Your task to perform on an android device: turn on airplane mode Image 0: 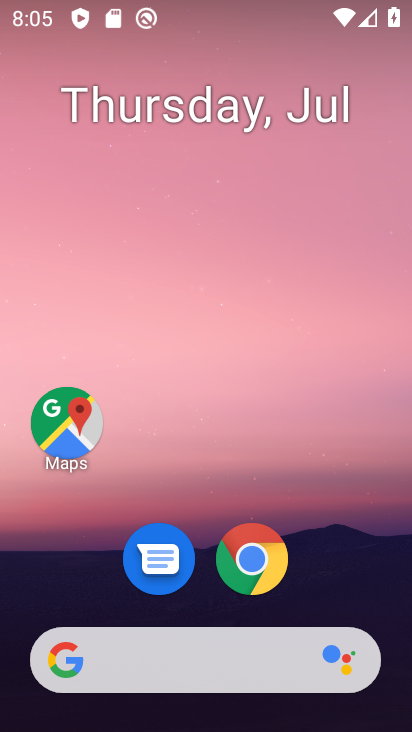
Step 0: drag from (112, 579) to (179, 2)
Your task to perform on an android device: turn on airplane mode Image 1: 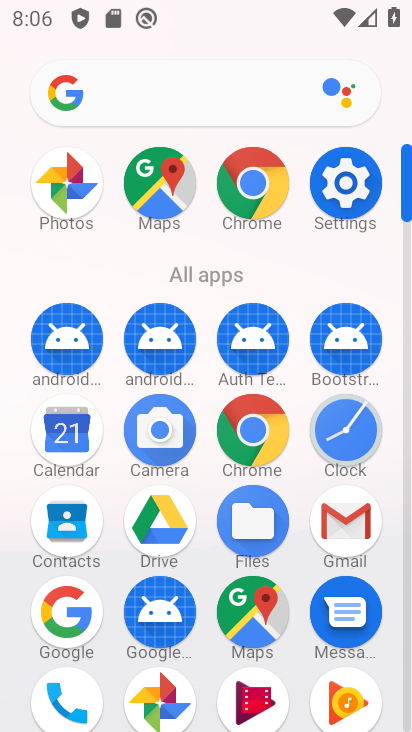
Step 1: drag from (369, 20) to (257, 675)
Your task to perform on an android device: turn on airplane mode Image 2: 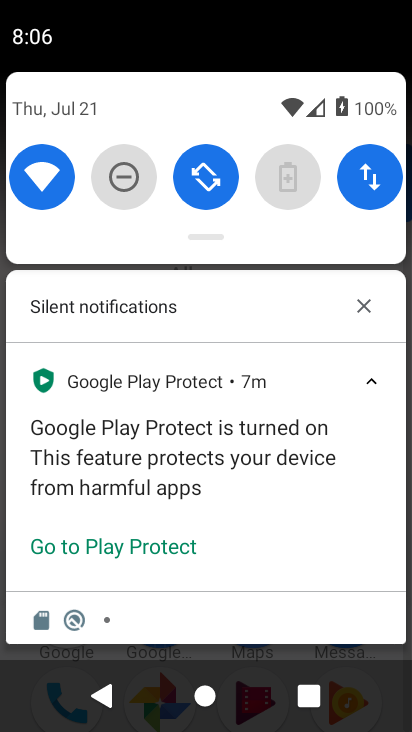
Step 2: drag from (206, 220) to (228, 720)
Your task to perform on an android device: turn on airplane mode Image 3: 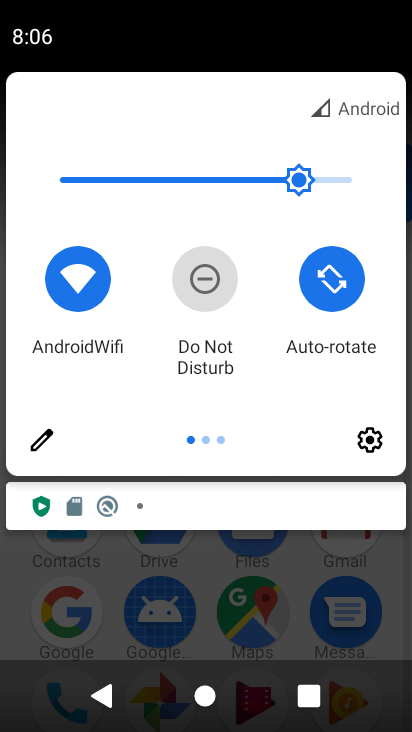
Step 3: drag from (367, 280) to (11, 405)
Your task to perform on an android device: turn on airplane mode Image 4: 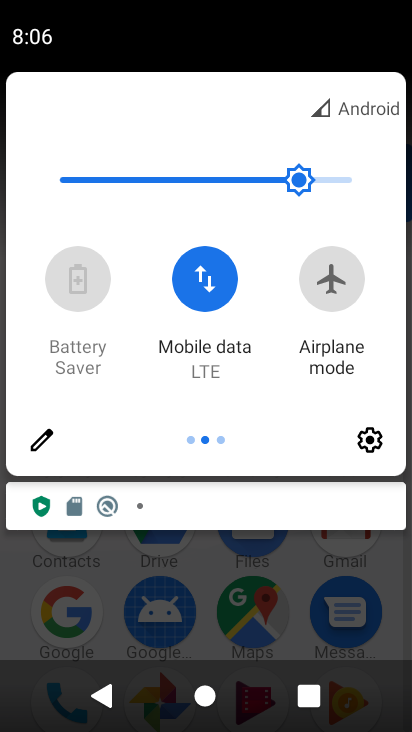
Step 4: click (326, 278)
Your task to perform on an android device: turn on airplane mode Image 5: 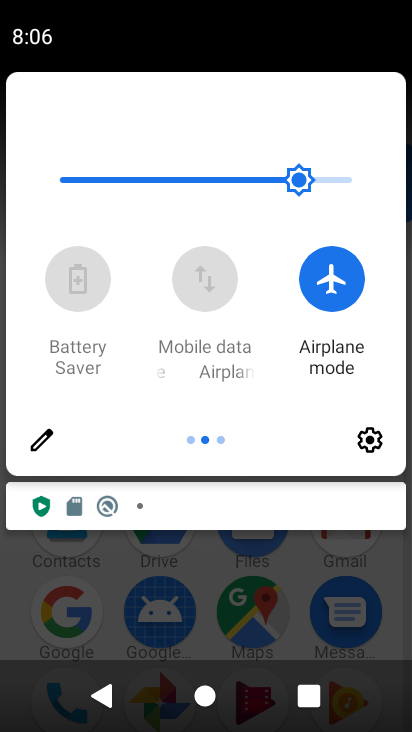
Step 5: task complete